Your task to perform on an android device: turn off sleep mode Image 0: 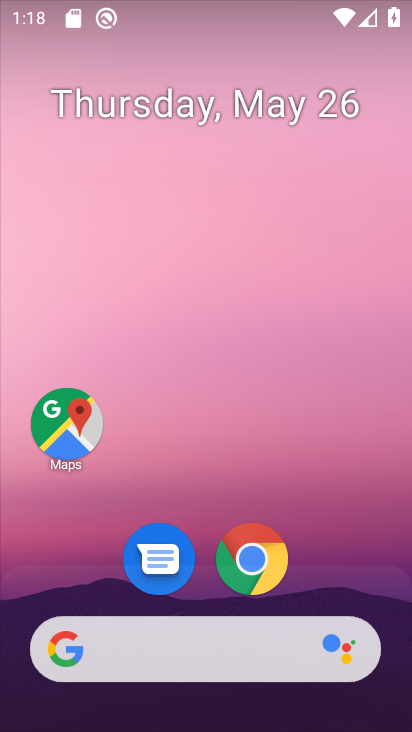
Step 0: drag from (66, 623) to (213, 140)
Your task to perform on an android device: turn off sleep mode Image 1: 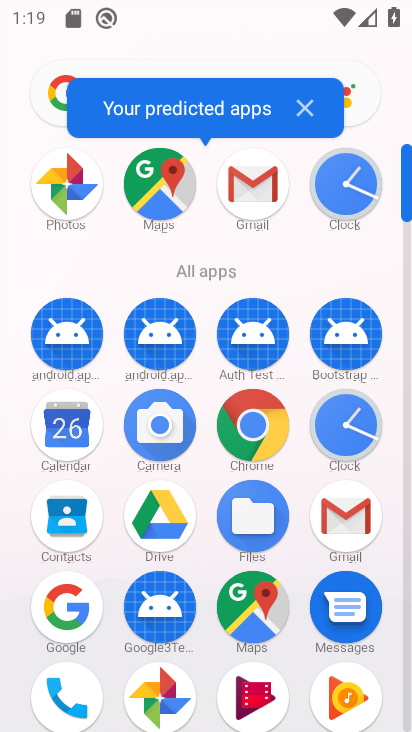
Step 1: drag from (130, 662) to (233, 330)
Your task to perform on an android device: turn off sleep mode Image 2: 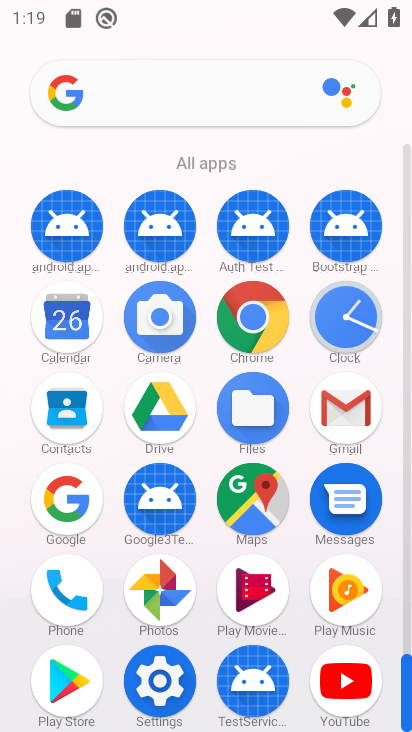
Step 2: click (168, 684)
Your task to perform on an android device: turn off sleep mode Image 3: 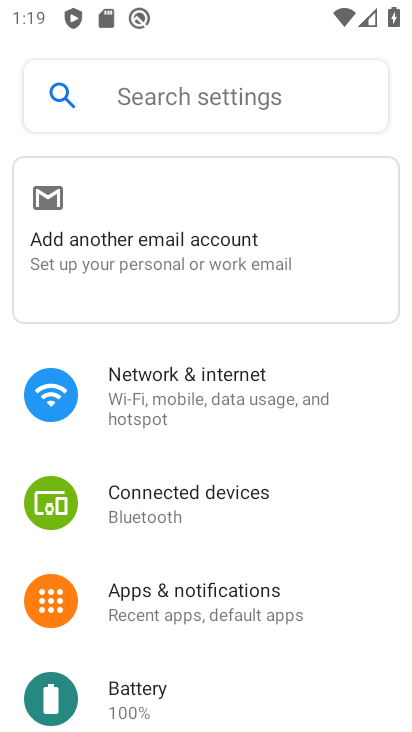
Step 3: drag from (171, 599) to (300, 163)
Your task to perform on an android device: turn off sleep mode Image 4: 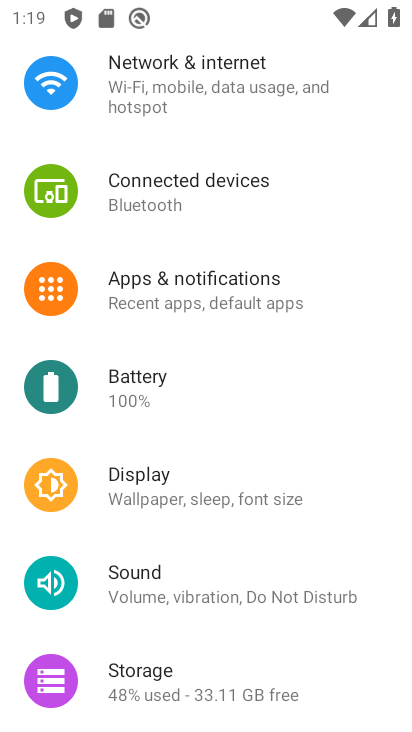
Step 4: click (181, 495)
Your task to perform on an android device: turn off sleep mode Image 5: 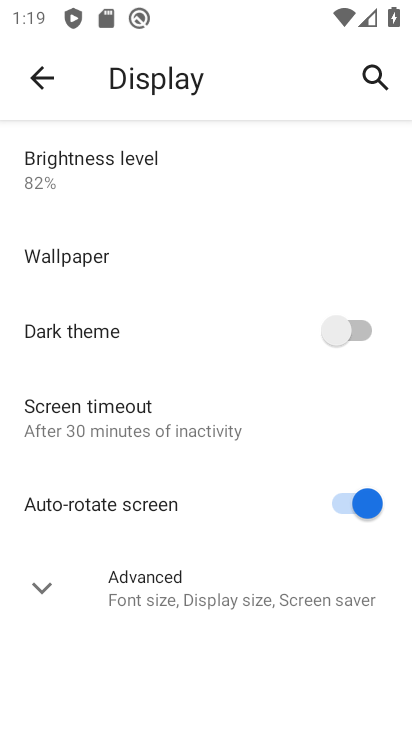
Step 5: click (157, 566)
Your task to perform on an android device: turn off sleep mode Image 6: 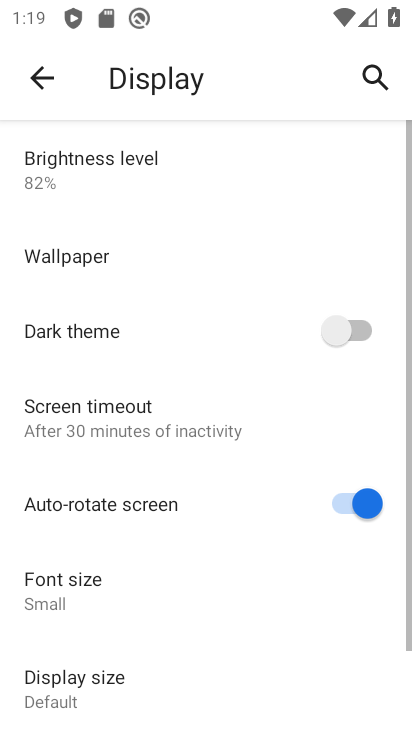
Step 6: task complete